Your task to perform on an android device: see tabs open on other devices in the chrome app Image 0: 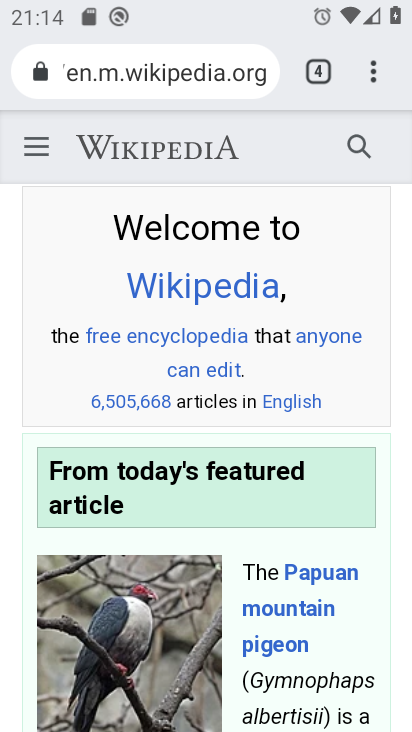
Step 0: click (371, 70)
Your task to perform on an android device: see tabs open on other devices in the chrome app Image 1: 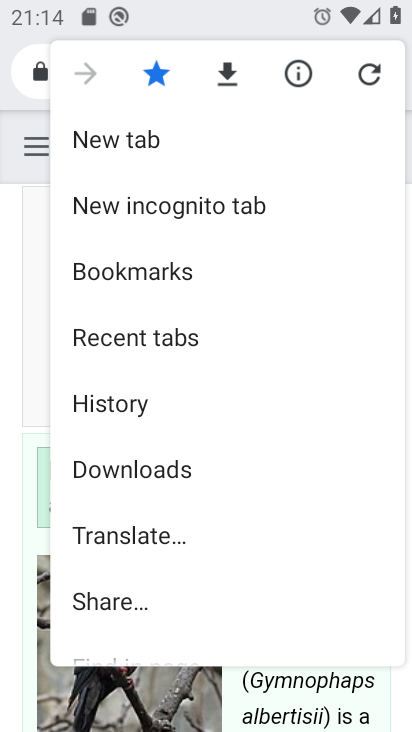
Step 1: click (163, 343)
Your task to perform on an android device: see tabs open on other devices in the chrome app Image 2: 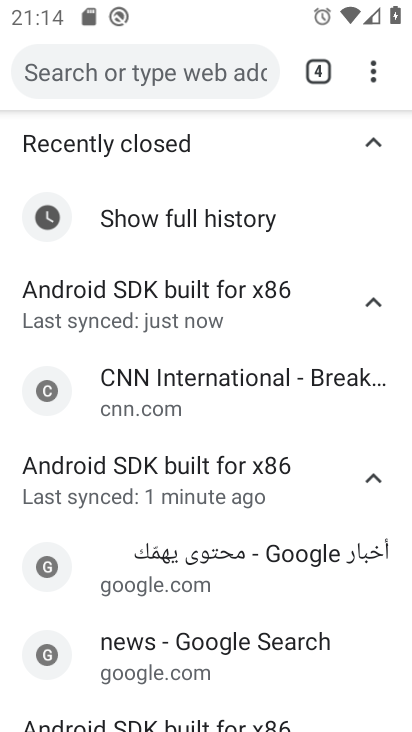
Step 2: task complete